Your task to perform on an android device: Go to settings Image 0: 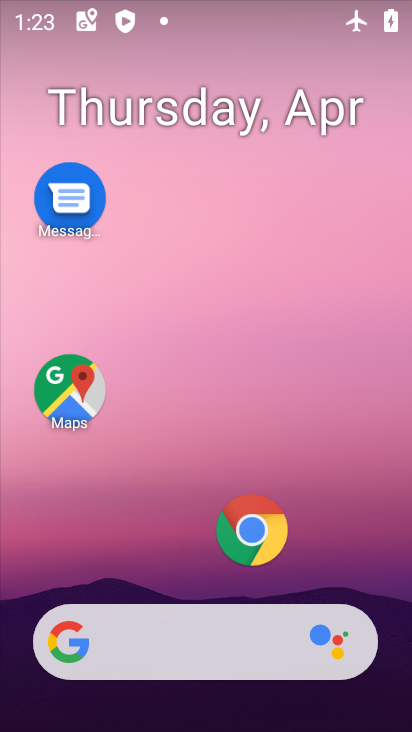
Step 0: drag from (217, 595) to (184, 2)
Your task to perform on an android device: Go to settings Image 1: 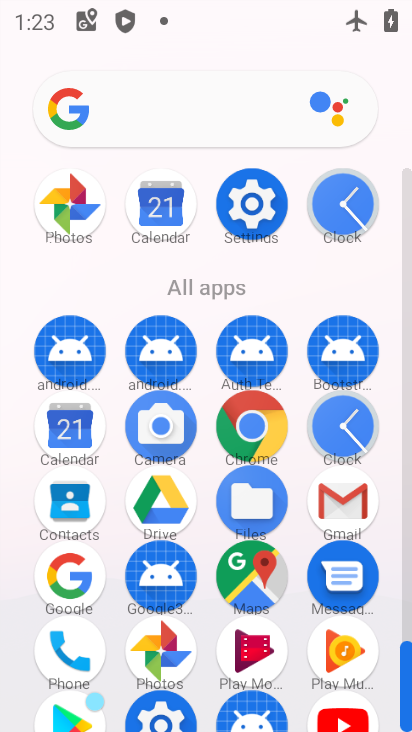
Step 1: click (237, 227)
Your task to perform on an android device: Go to settings Image 2: 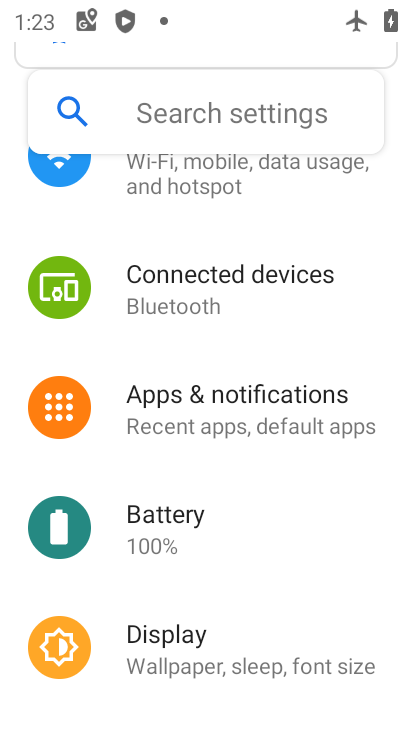
Step 2: task complete